Your task to perform on an android device: Open the phone app and click the voicemail tab. Image 0: 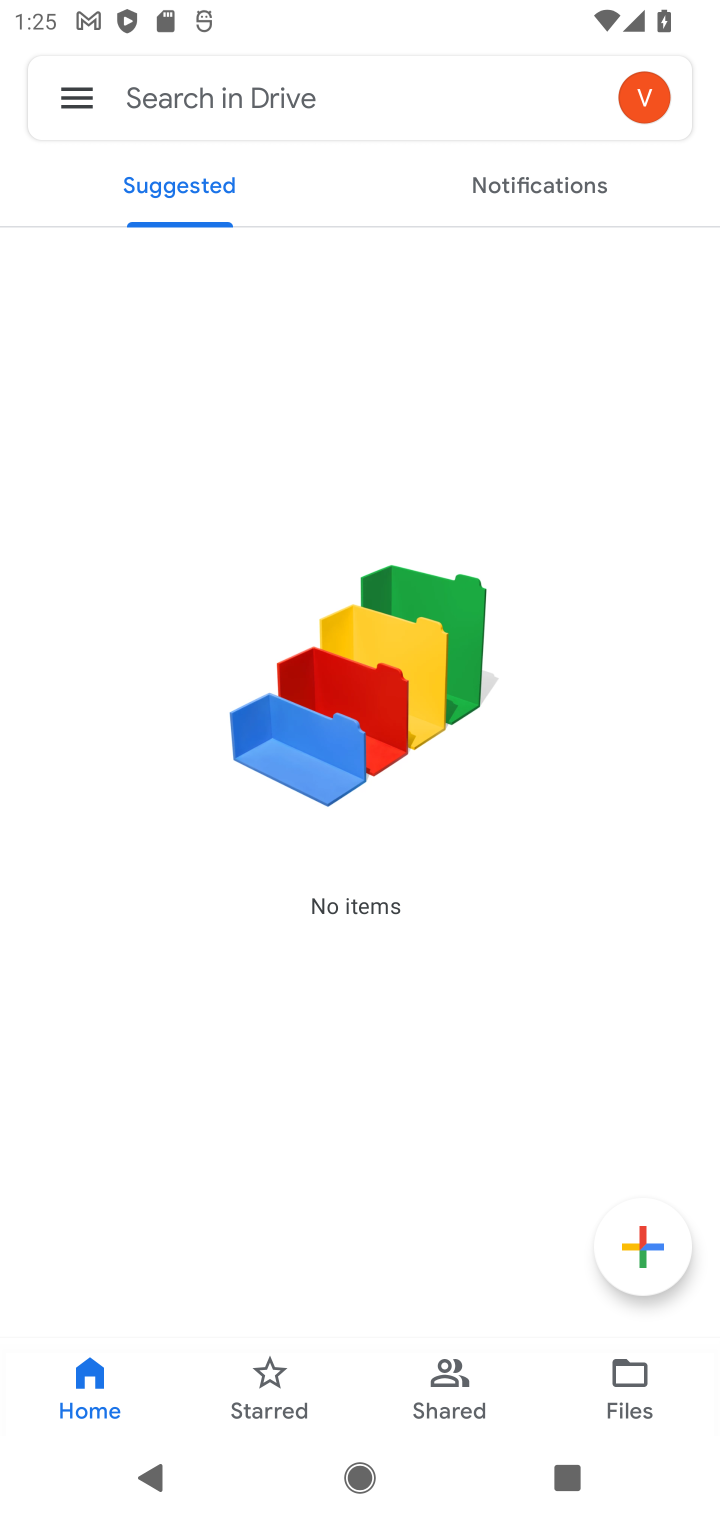
Step 0: press home button
Your task to perform on an android device: Open the phone app and click the voicemail tab. Image 1: 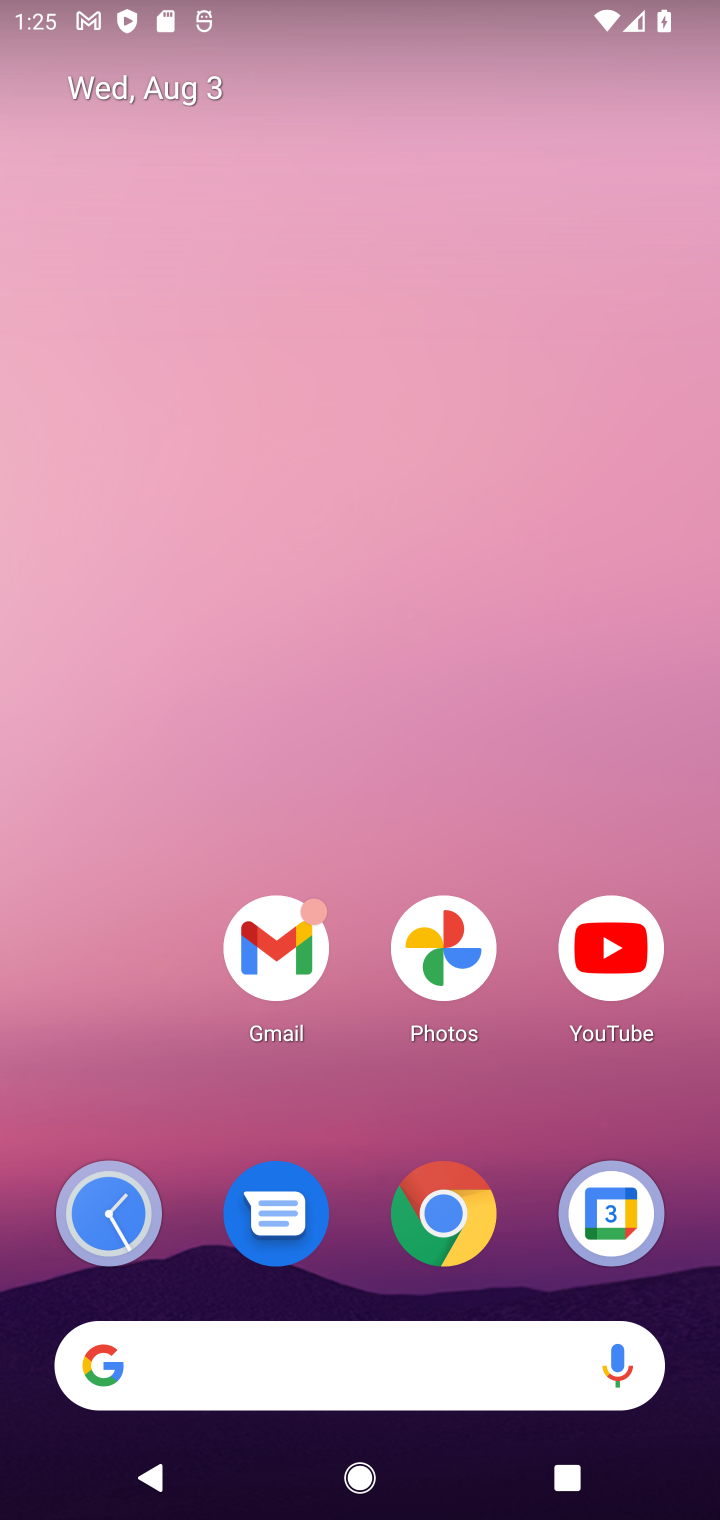
Step 1: drag from (253, 1354) to (571, 10)
Your task to perform on an android device: Open the phone app and click the voicemail tab. Image 2: 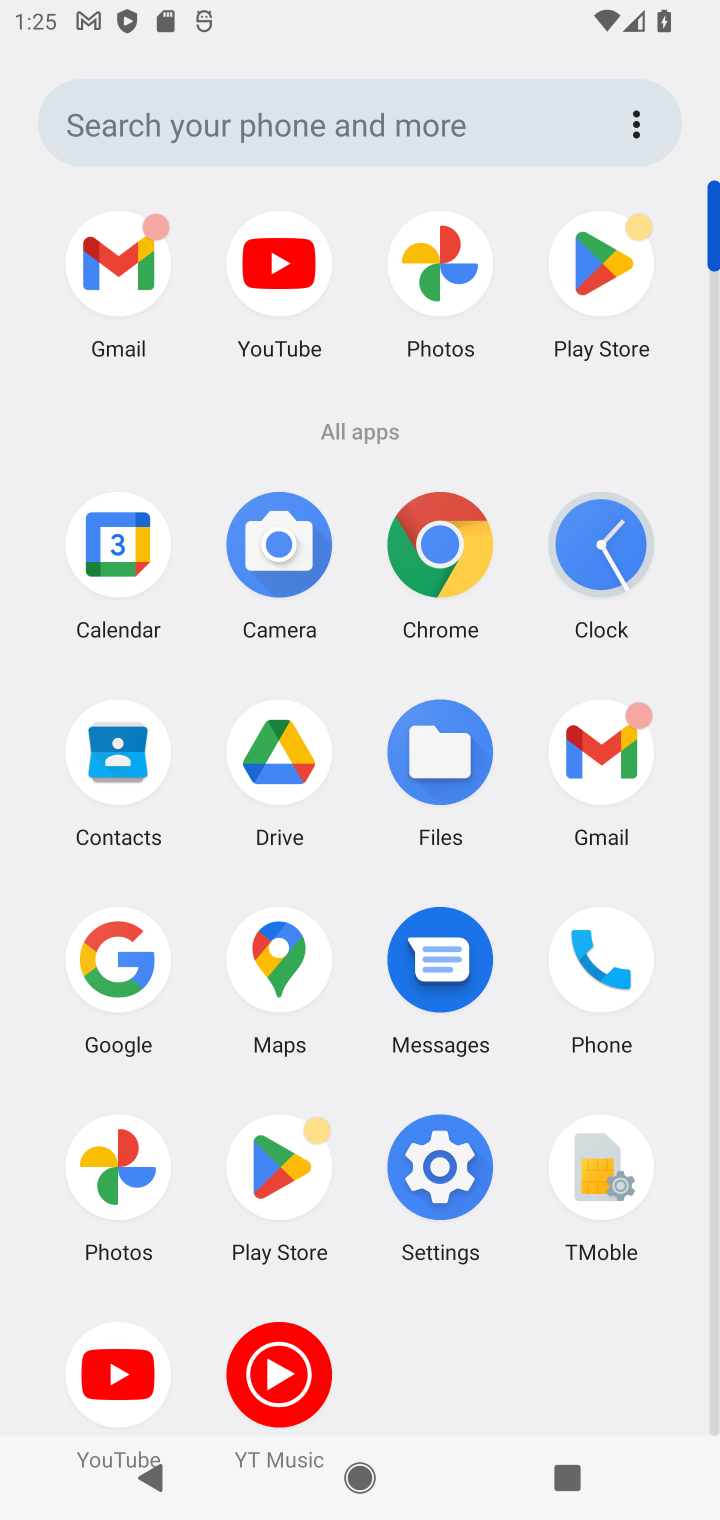
Step 2: click (603, 941)
Your task to perform on an android device: Open the phone app and click the voicemail tab. Image 3: 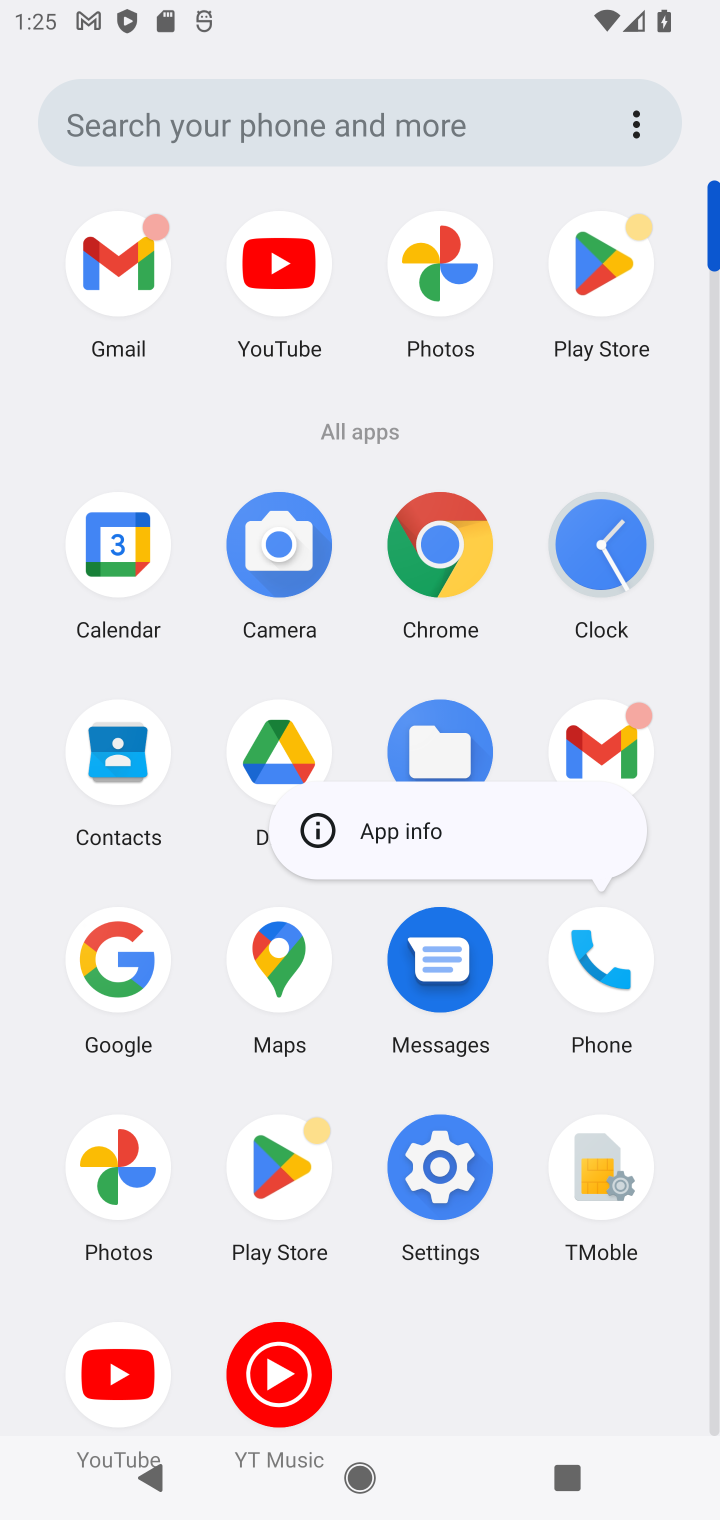
Step 3: click (603, 941)
Your task to perform on an android device: Open the phone app and click the voicemail tab. Image 4: 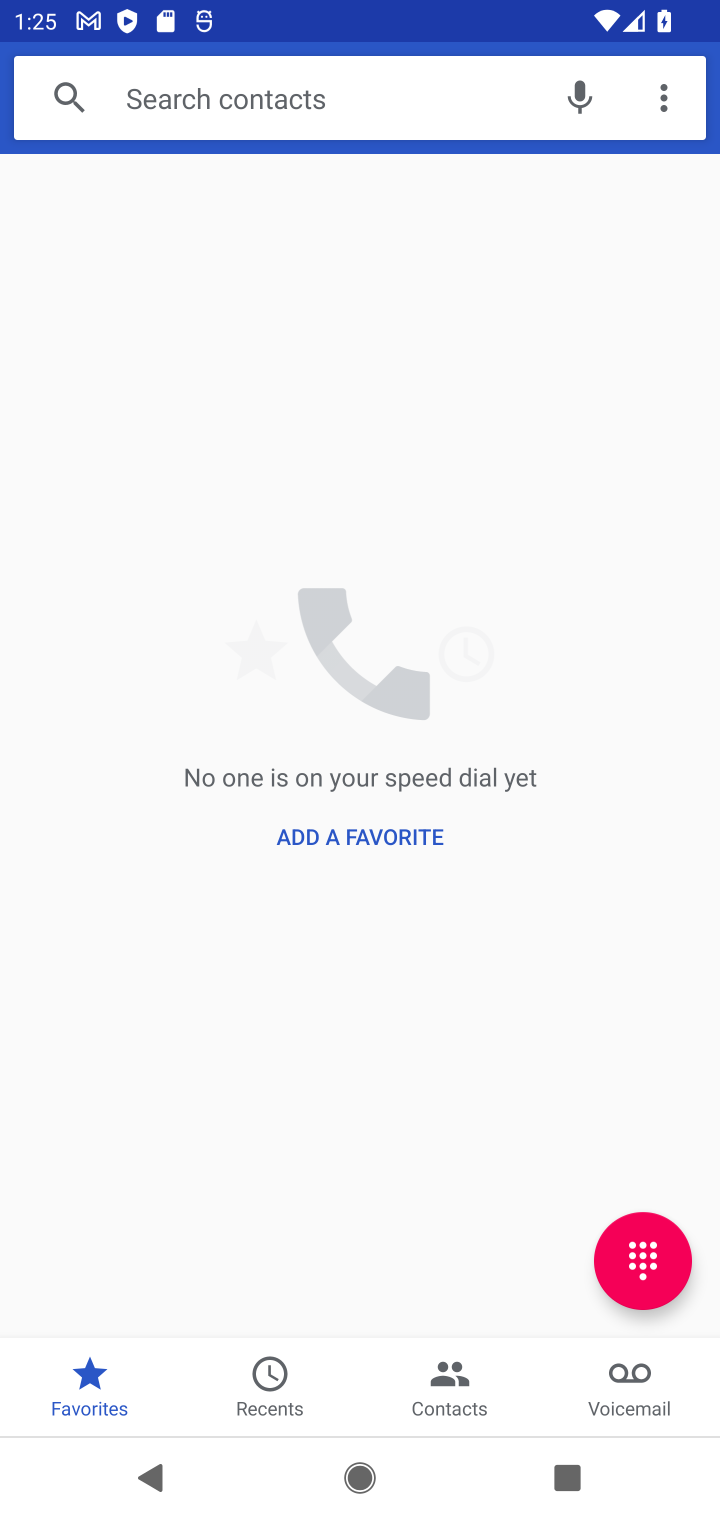
Step 4: click (610, 1384)
Your task to perform on an android device: Open the phone app and click the voicemail tab. Image 5: 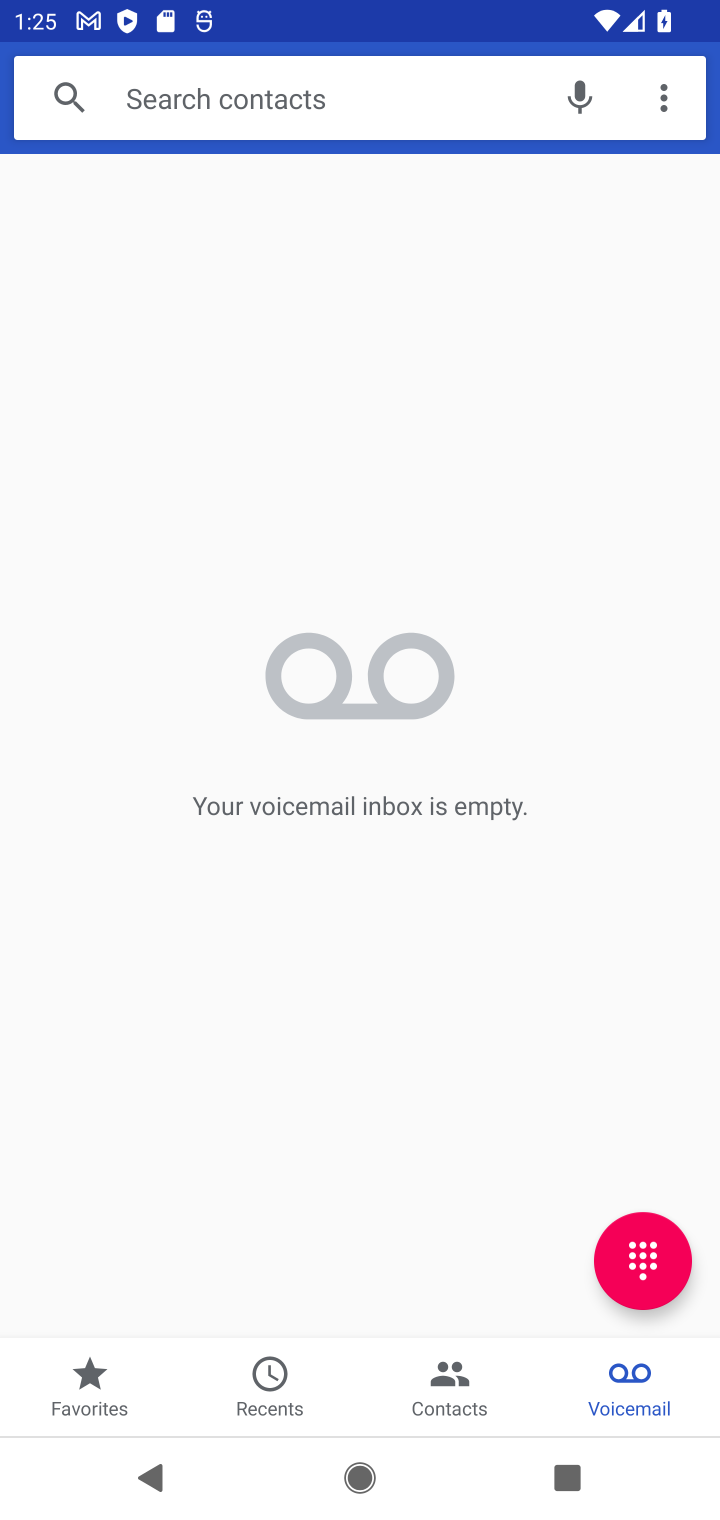
Step 5: task complete